Your task to perform on an android device: Open accessibility settings Image 0: 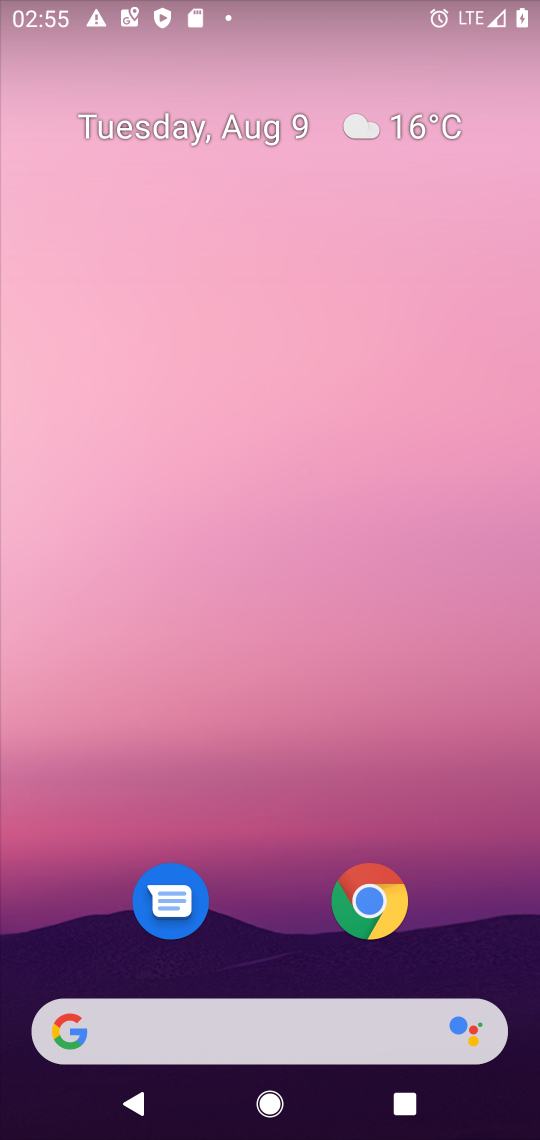
Step 0: drag from (505, 964) to (474, 235)
Your task to perform on an android device: Open accessibility settings Image 1: 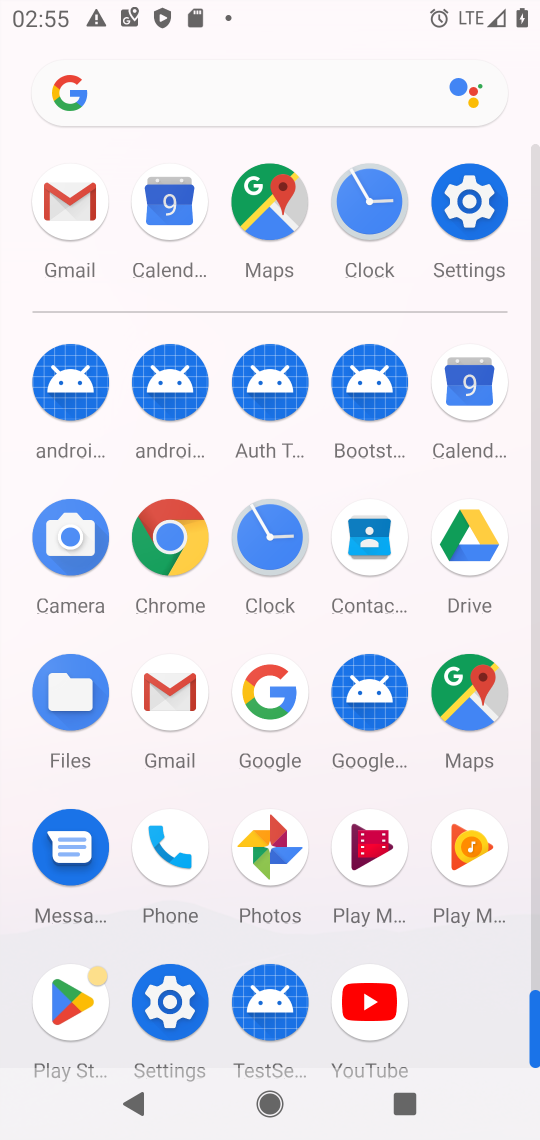
Step 1: click (174, 1007)
Your task to perform on an android device: Open accessibility settings Image 2: 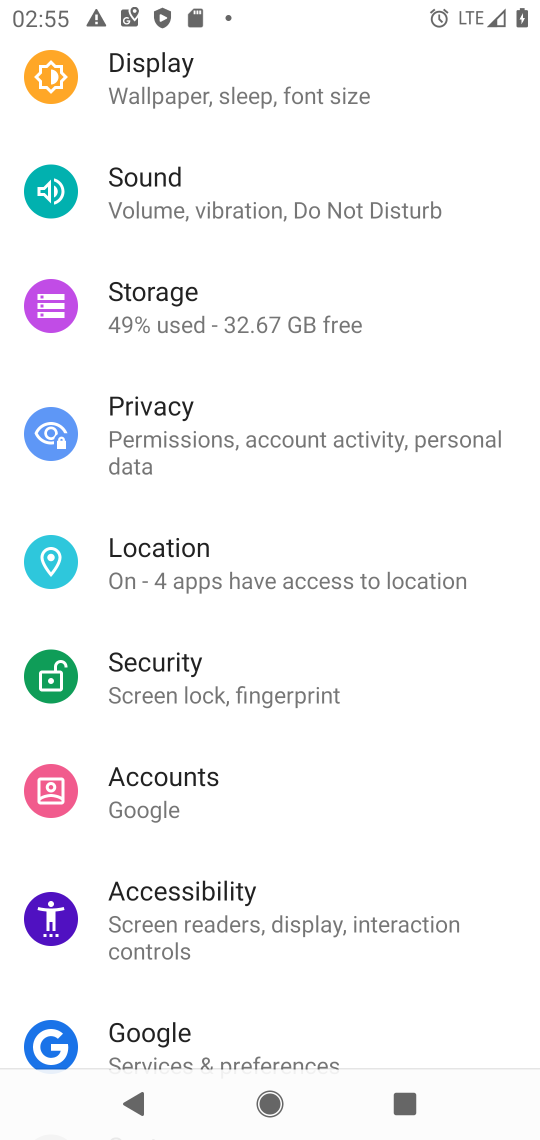
Step 2: drag from (443, 913) to (402, 345)
Your task to perform on an android device: Open accessibility settings Image 3: 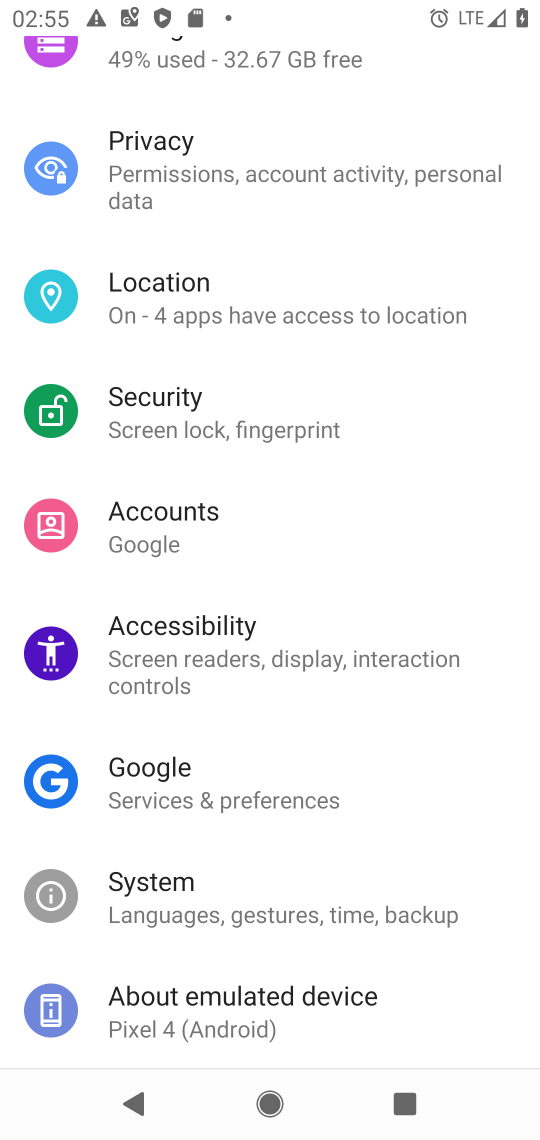
Step 3: click (159, 656)
Your task to perform on an android device: Open accessibility settings Image 4: 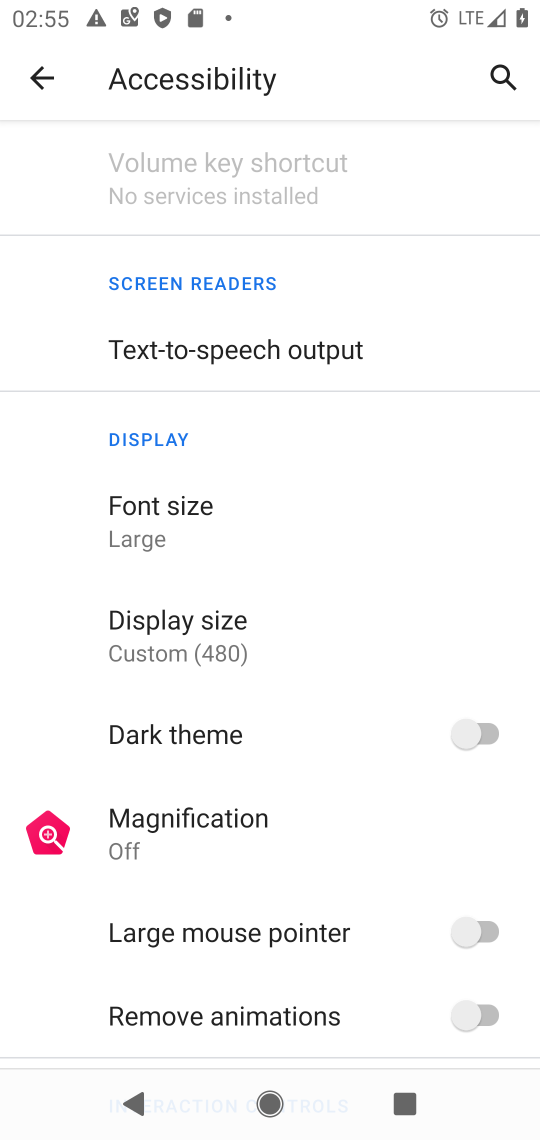
Step 4: task complete